Your task to perform on an android device: Show me popular videos on Youtube Image 0: 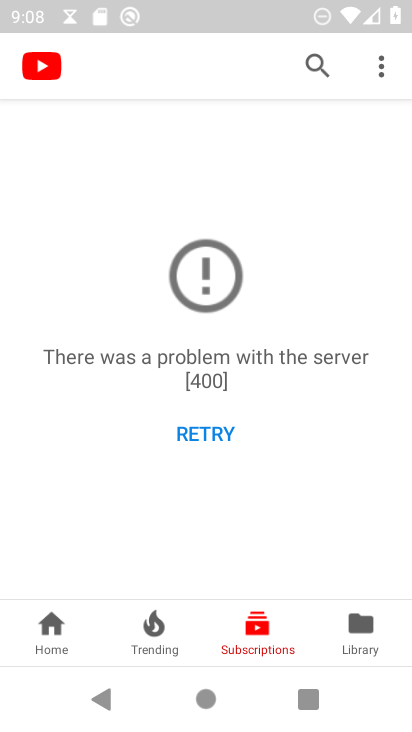
Step 0: click (371, 646)
Your task to perform on an android device: Show me popular videos on Youtube Image 1: 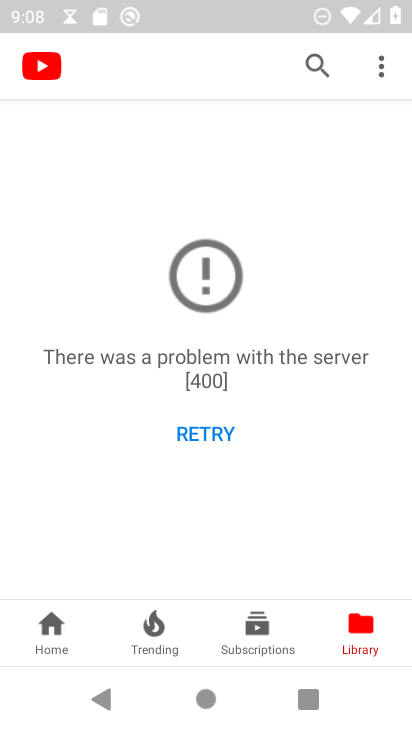
Step 1: task complete